Your task to perform on an android device: toggle location history Image 0: 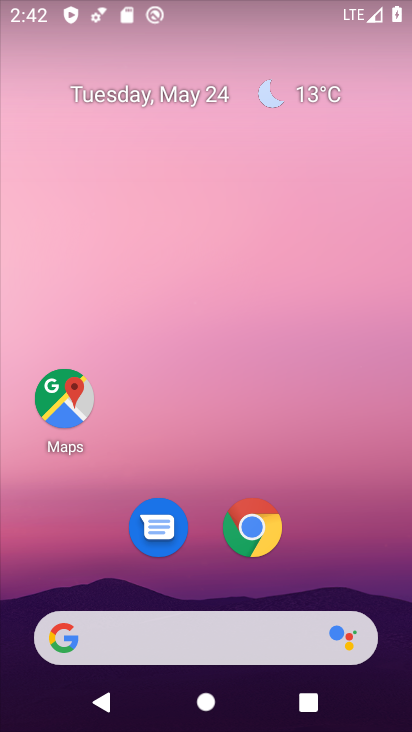
Step 0: drag from (312, 569) to (343, 126)
Your task to perform on an android device: toggle location history Image 1: 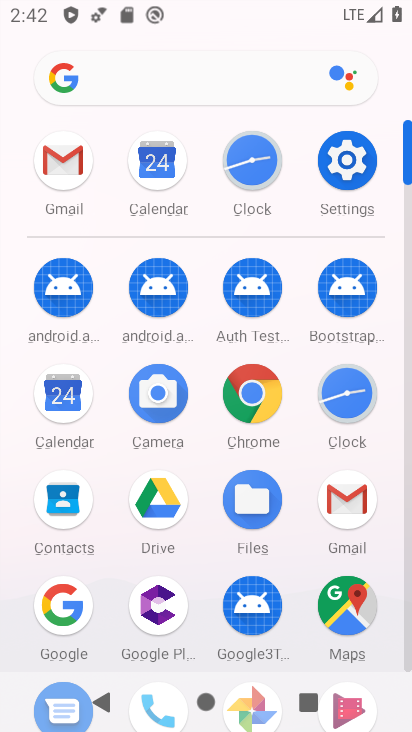
Step 1: click (340, 165)
Your task to perform on an android device: toggle location history Image 2: 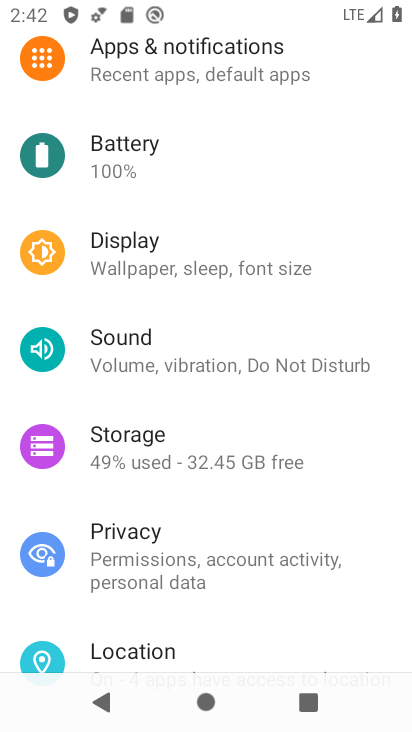
Step 2: click (165, 641)
Your task to perform on an android device: toggle location history Image 3: 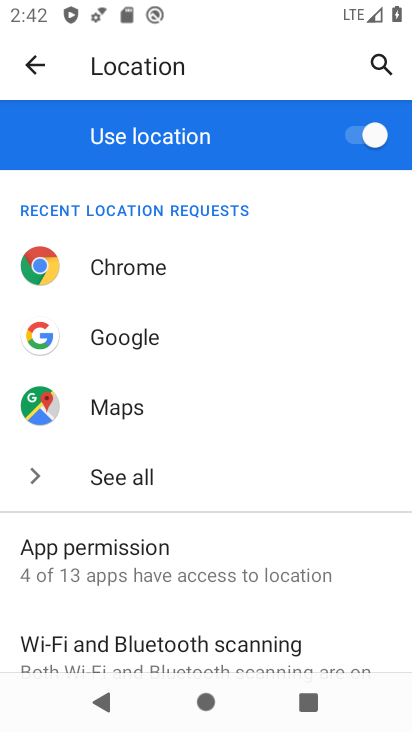
Step 3: drag from (166, 623) to (229, 190)
Your task to perform on an android device: toggle location history Image 4: 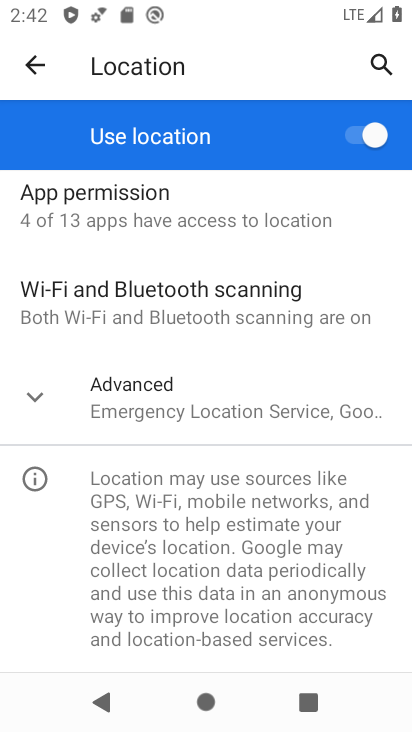
Step 4: click (182, 409)
Your task to perform on an android device: toggle location history Image 5: 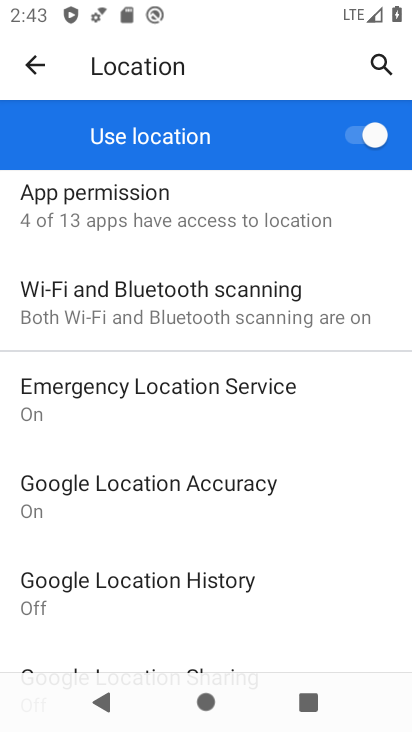
Step 5: click (174, 588)
Your task to perform on an android device: toggle location history Image 6: 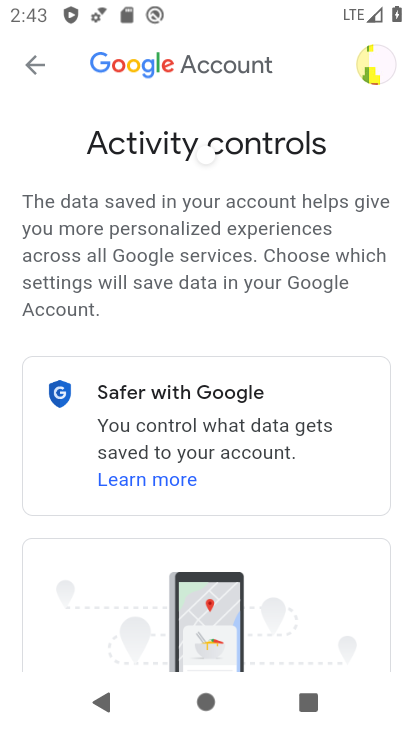
Step 6: drag from (212, 608) to (248, 306)
Your task to perform on an android device: toggle location history Image 7: 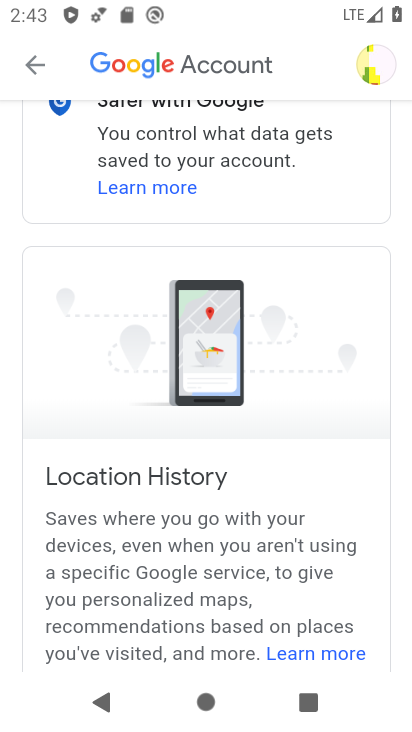
Step 7: drag from (227, 615) to (248, 338)
Your task to perform on an android device: toggle location history Image 8: 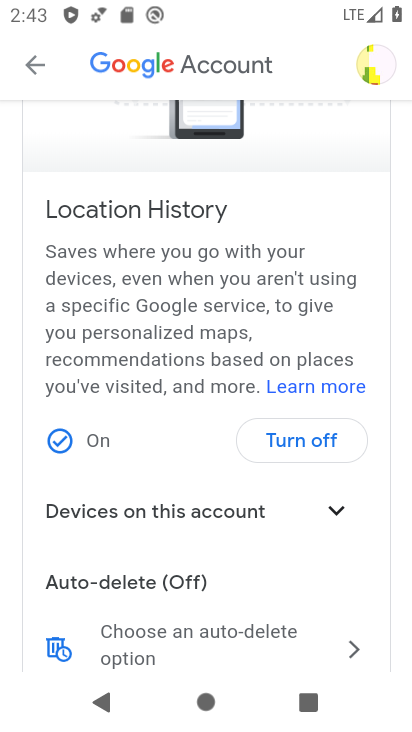
Step 8: click (295, 444)
Your task to perform on an android device: toggle location history Image 9: 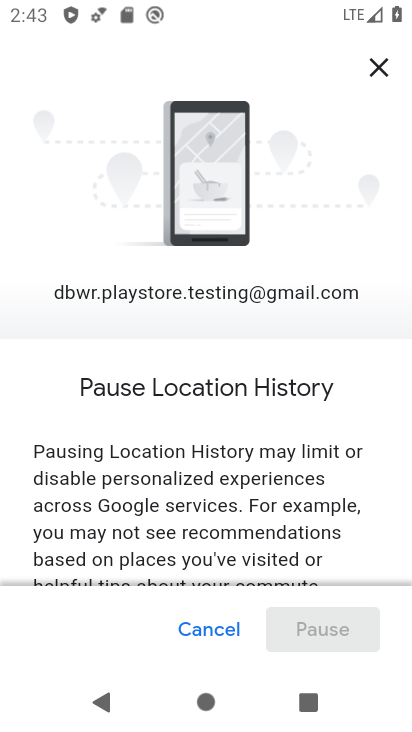
Step 9: drag from (302, 559) to (311, 163)
Your task to perform on an android device: toggle location history Image 10: 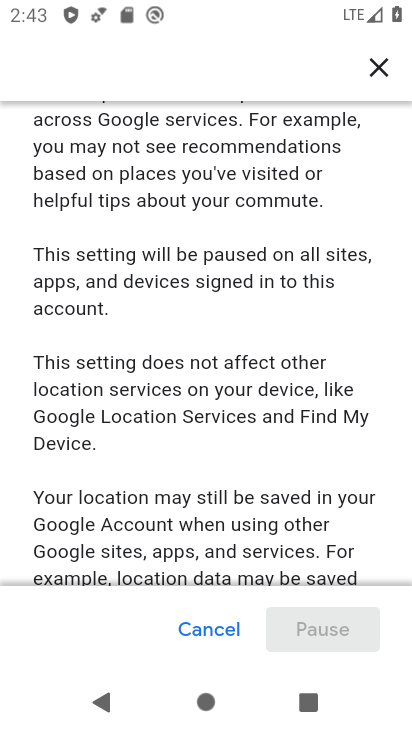
Step 10: drag from (220, 555) to (238, 111)
Your task to perform on an android device: toggle location history Image 11: 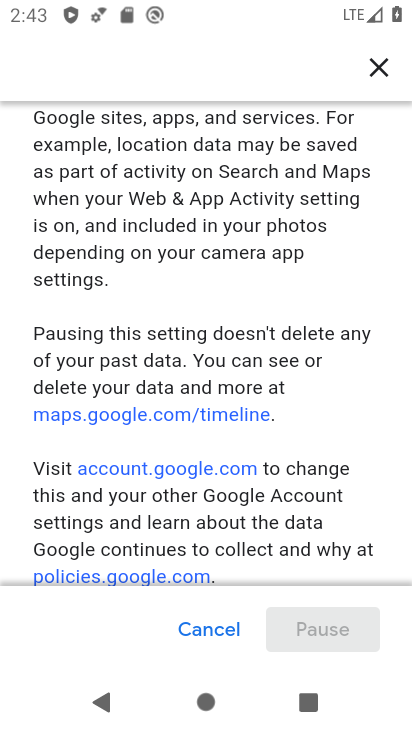
Step 11: drag from (189, 495) to (219, 105)
Your task to perform on an android device: toggle location history Image 12: 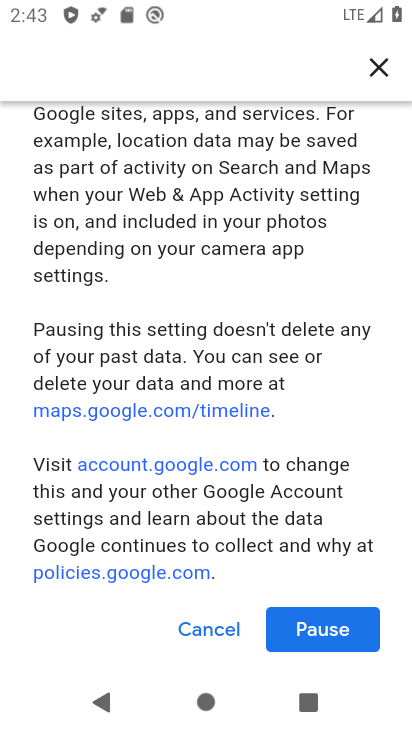
Step 12: click (299, 618)
Your task to perform on an android device: toggle location history Image 13: 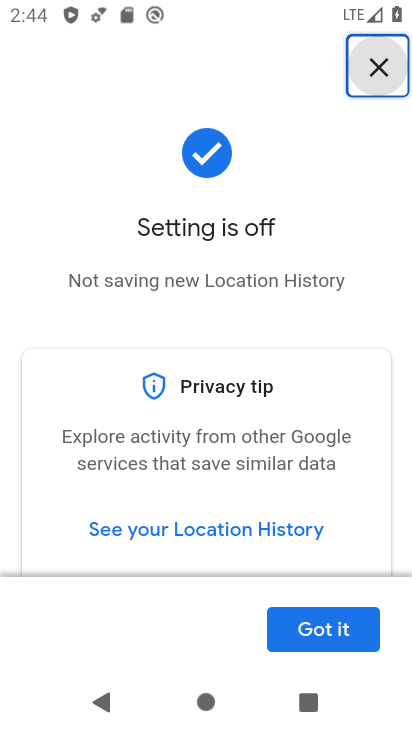
Step 13: task complete